Your task to perform on an android device: open app "Messages" (install if not already installed) Image 0: 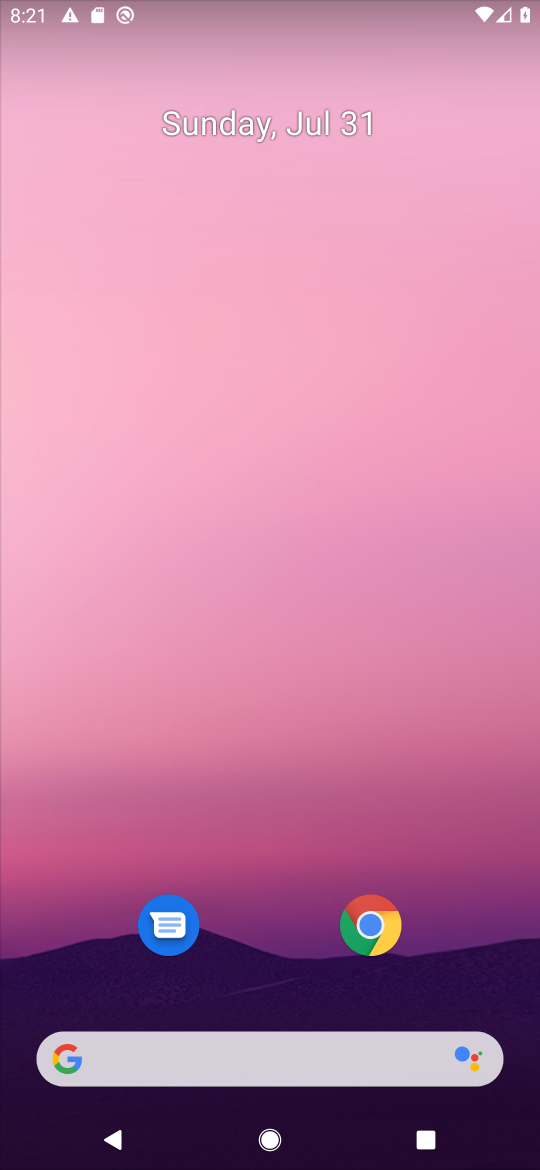
Step 0: drag from (283, 959) to (236, 19)
Your task to perform on an android device: open app "Messages" (install if not already installed) Image 1: 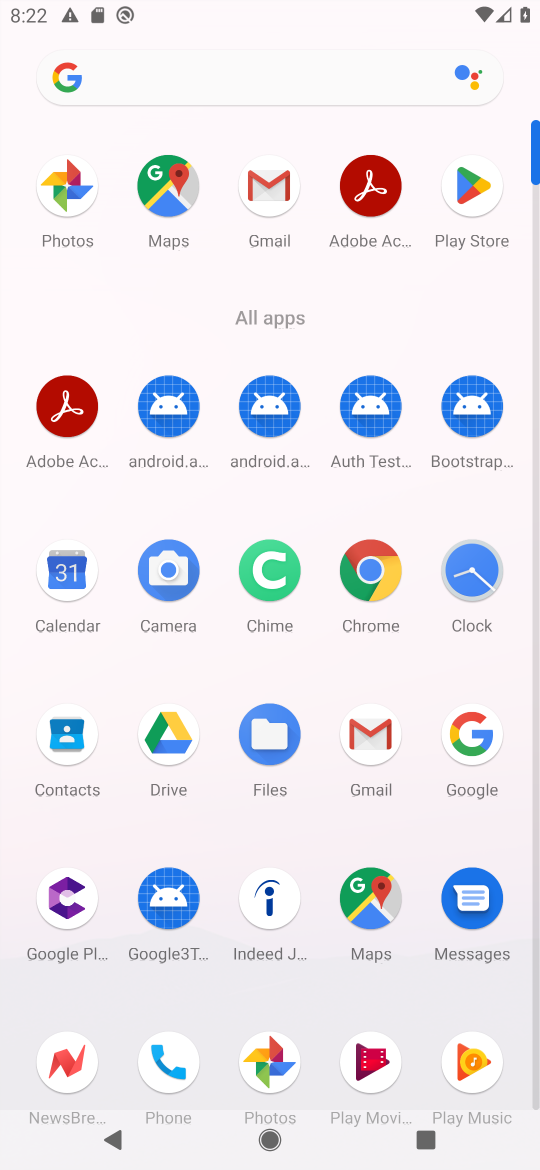
Step 1: click (455, 205)
Your task to perform on an android device: open app "Messages" (install if not already installed) Image 2: 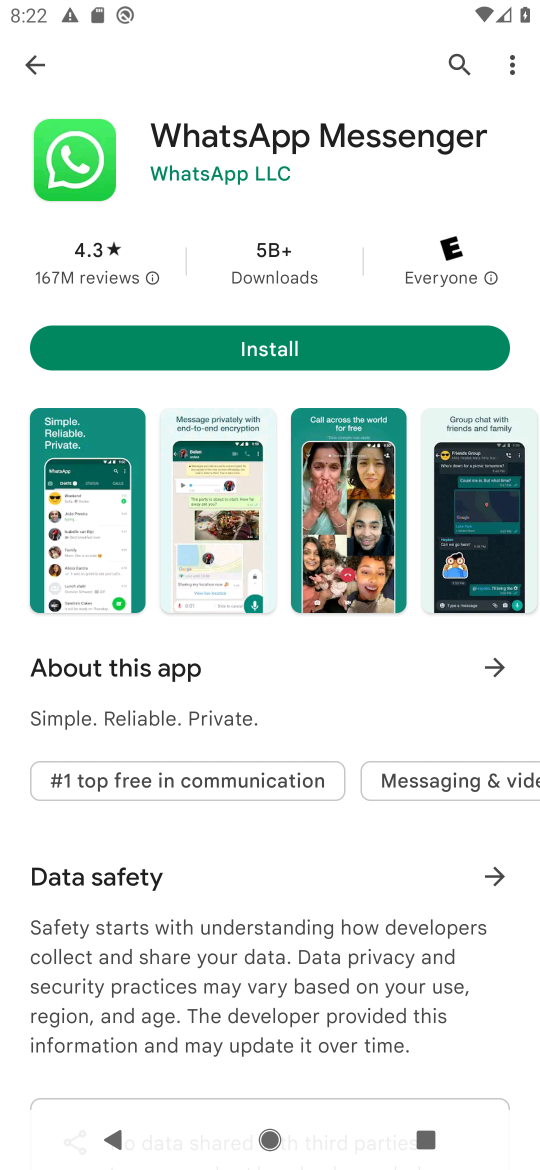
Step 2: click (447, 72)
Your task to perform on an android device: open app "Messages" (install if not already installed) Image 3: 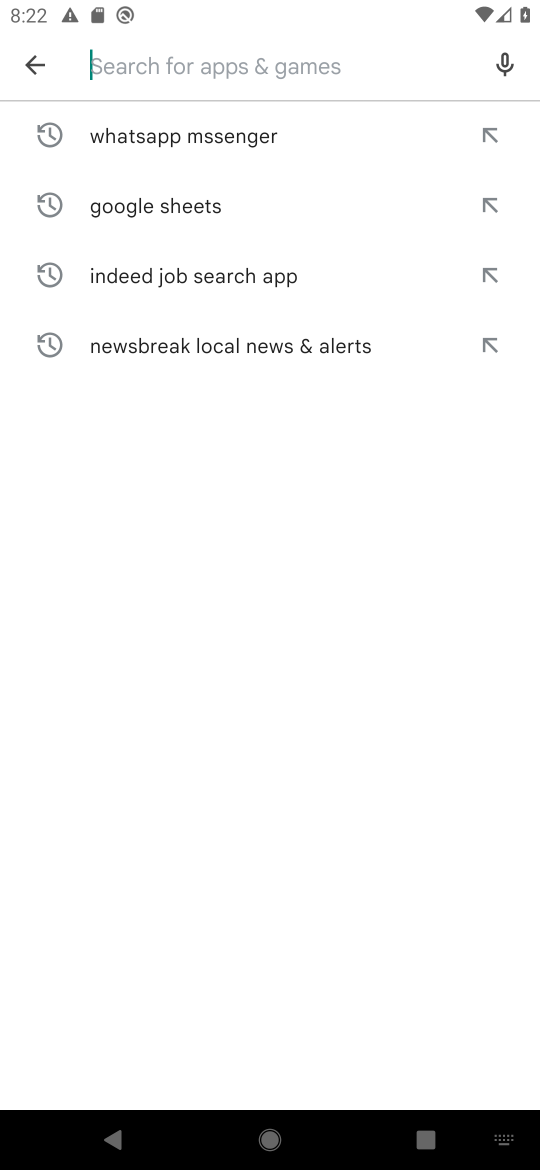
Step 3: type "message"
Your task to perform on an android device: open app "Messages" (install if not already installed) Image 4: 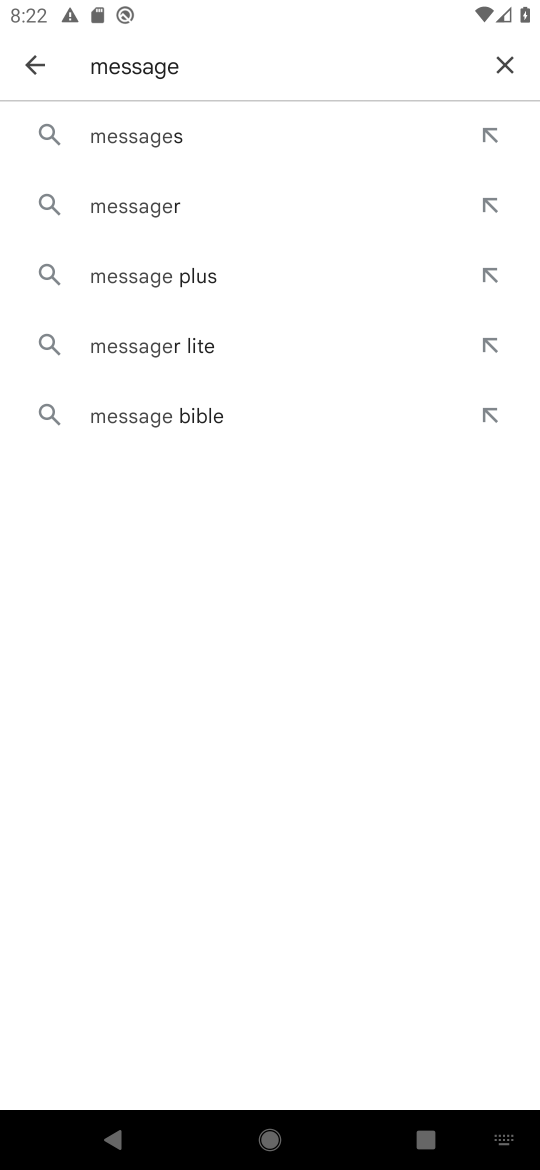
Step 4: click (120, 141)
Your task to perform on an android device: open app "Messages" (install if not already installed) Image 5: 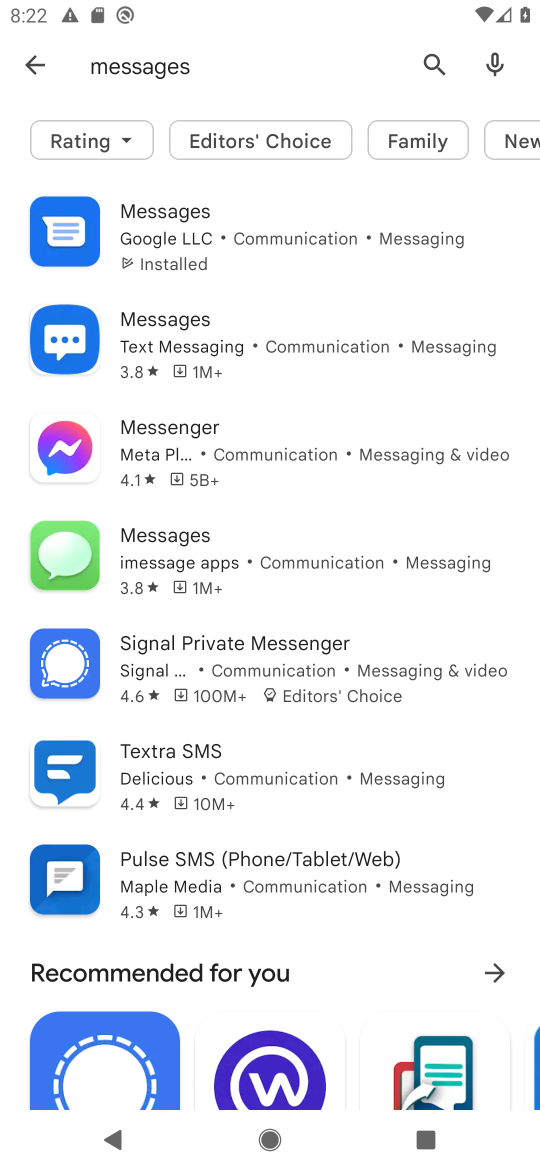
Step 5: click (192, 238)
Your task to perform on an android device: open app "Messages" (install if not already installed) Image 6: 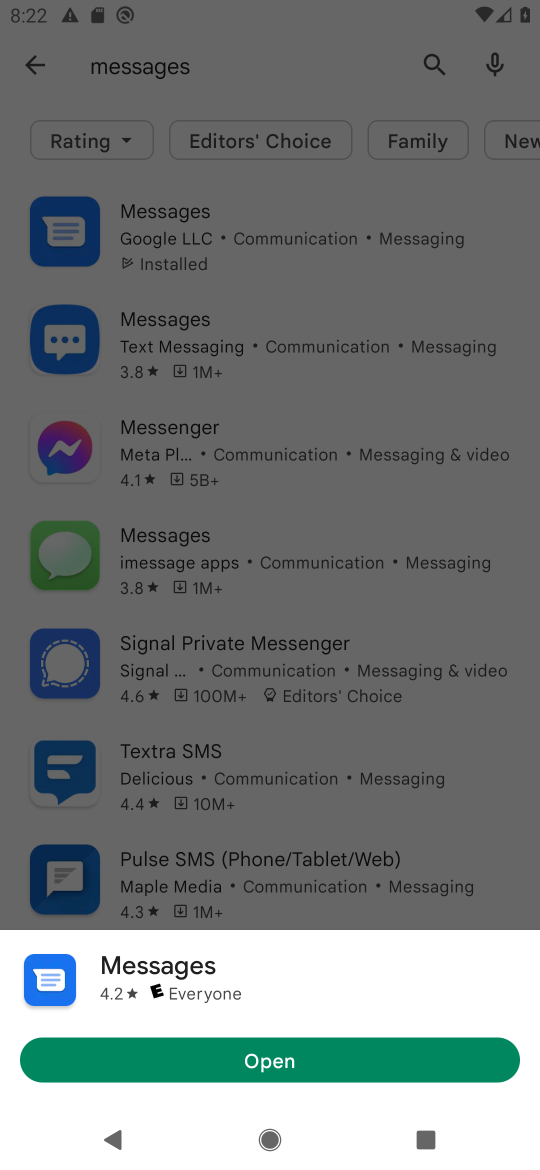
Step 6: click (222, 1059)
Your task to perform on an android device: open app "Messages" (install if not already installed) Image 7: 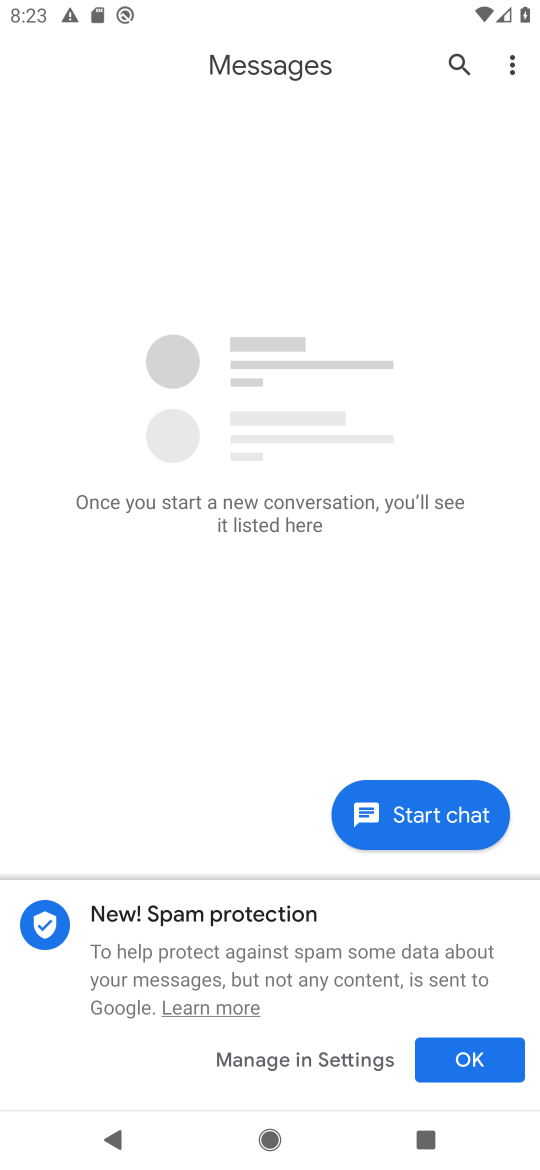
Step 7: task complete